Your task to perform on an android device: View the shopping cart on bestbuy. Add usb-a to the cart on bestbuy Image 0: 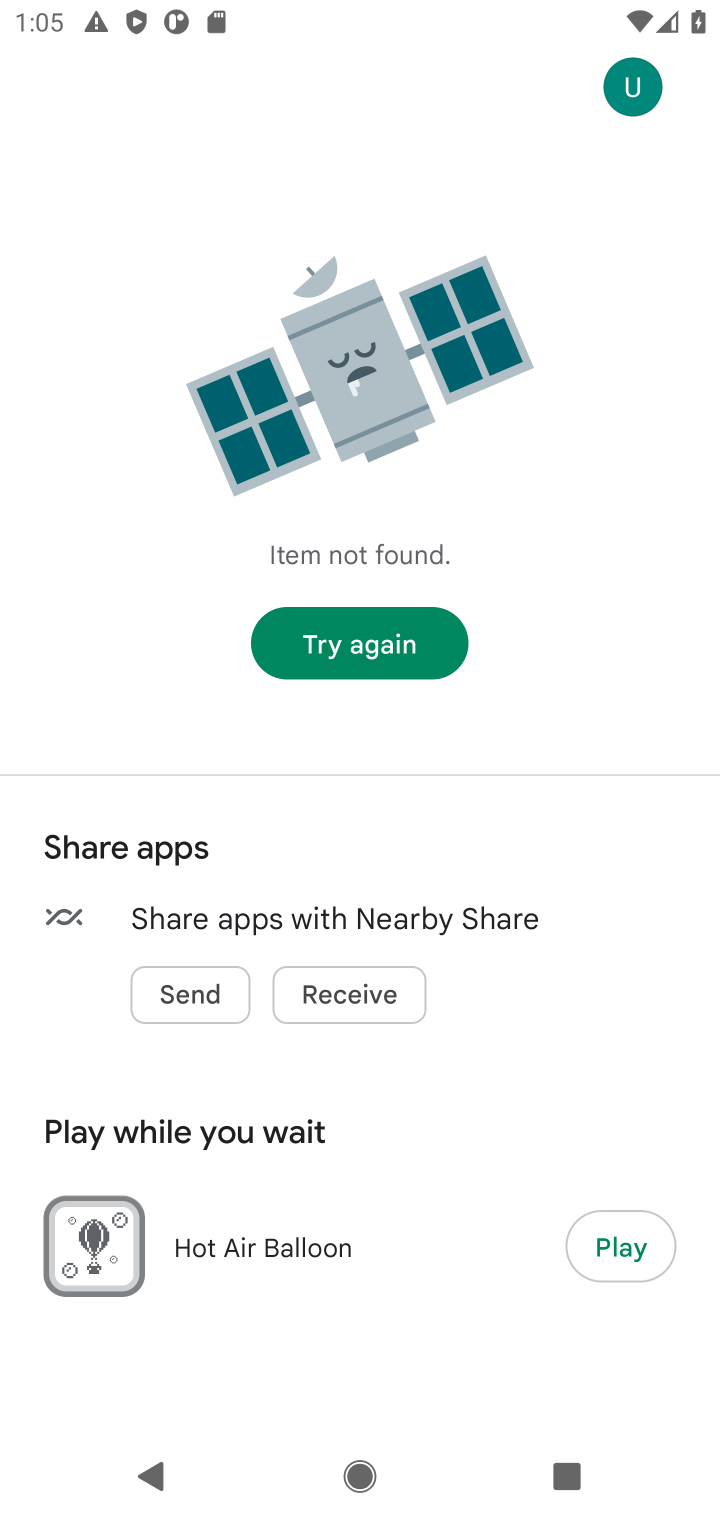
Step 0: press home button
Your task to perform on an android device: View the shopping cart on bestbuy. Add usb-a to the cart on bestbuy Image 1: 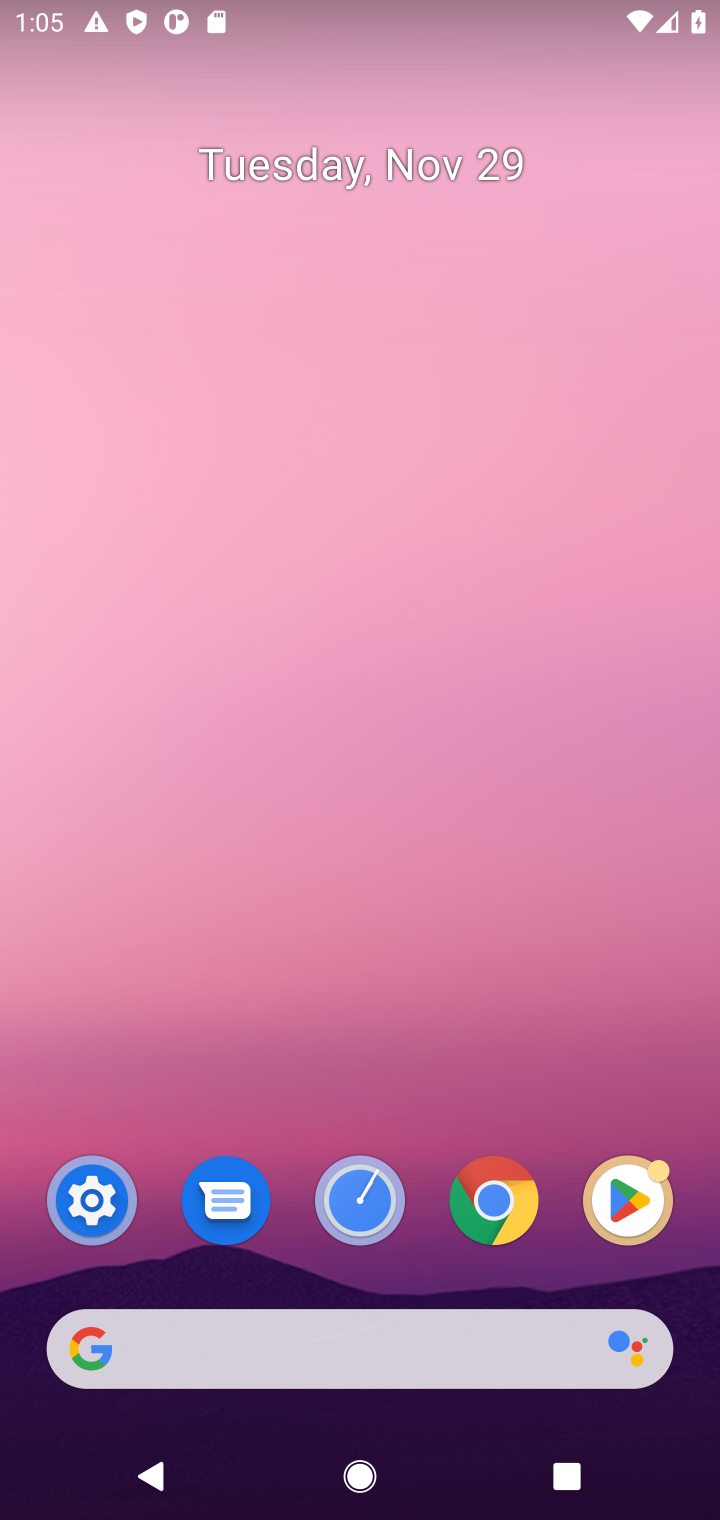
Step 1: click (291, 1367)
Your task to perform on an android device: View the shopping cart on bestbuy. Add usb-a to the cart on bestbuy Image 2: 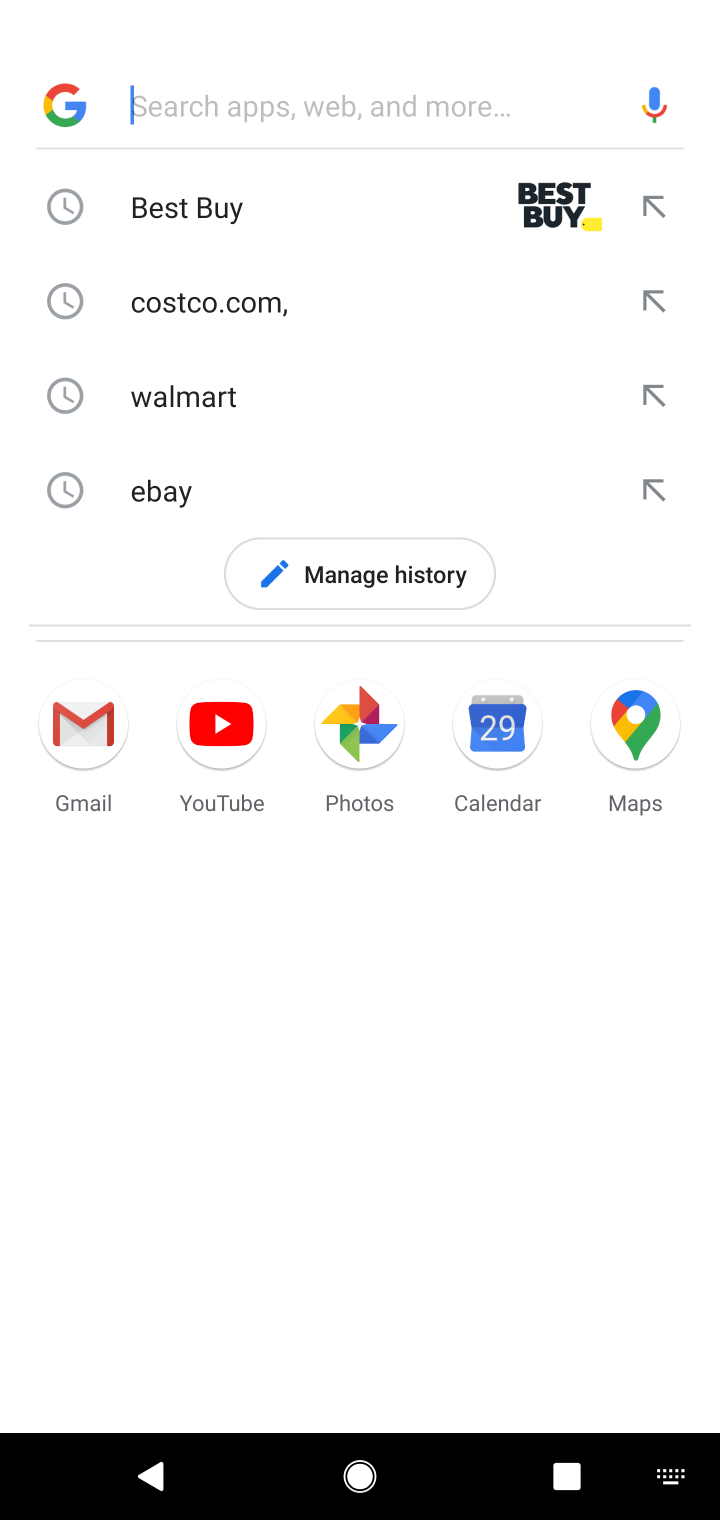
Step 2: type "bestbuy.com"
Your task to perform on an android device: View the shopping cart on bestbuy. Add usb-a to the cart on bestbuy Image 3: 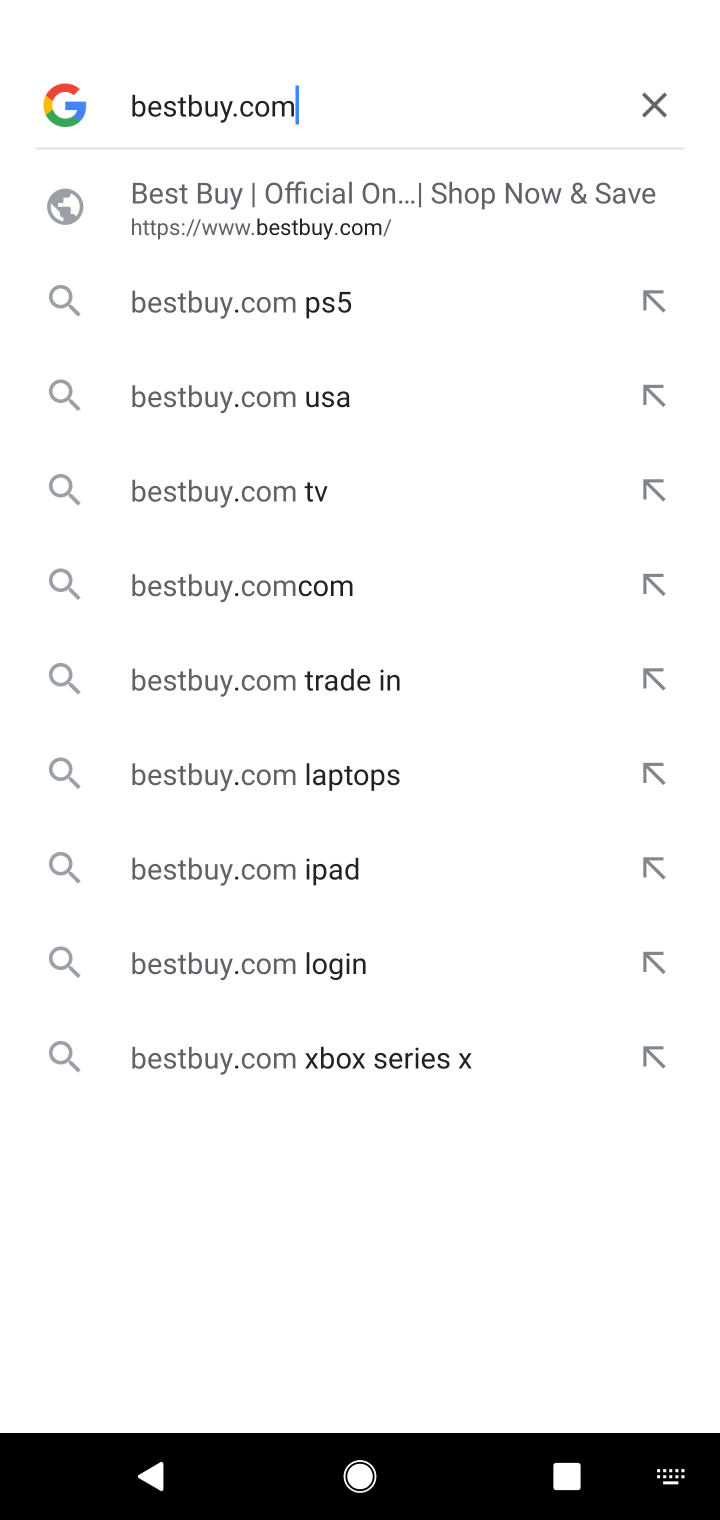
Step 3: click (345, 218)
Your task to perform on an android device: View the shopping cart on bestbuy. Add usb-a to the cart on bestbuy Image 4: 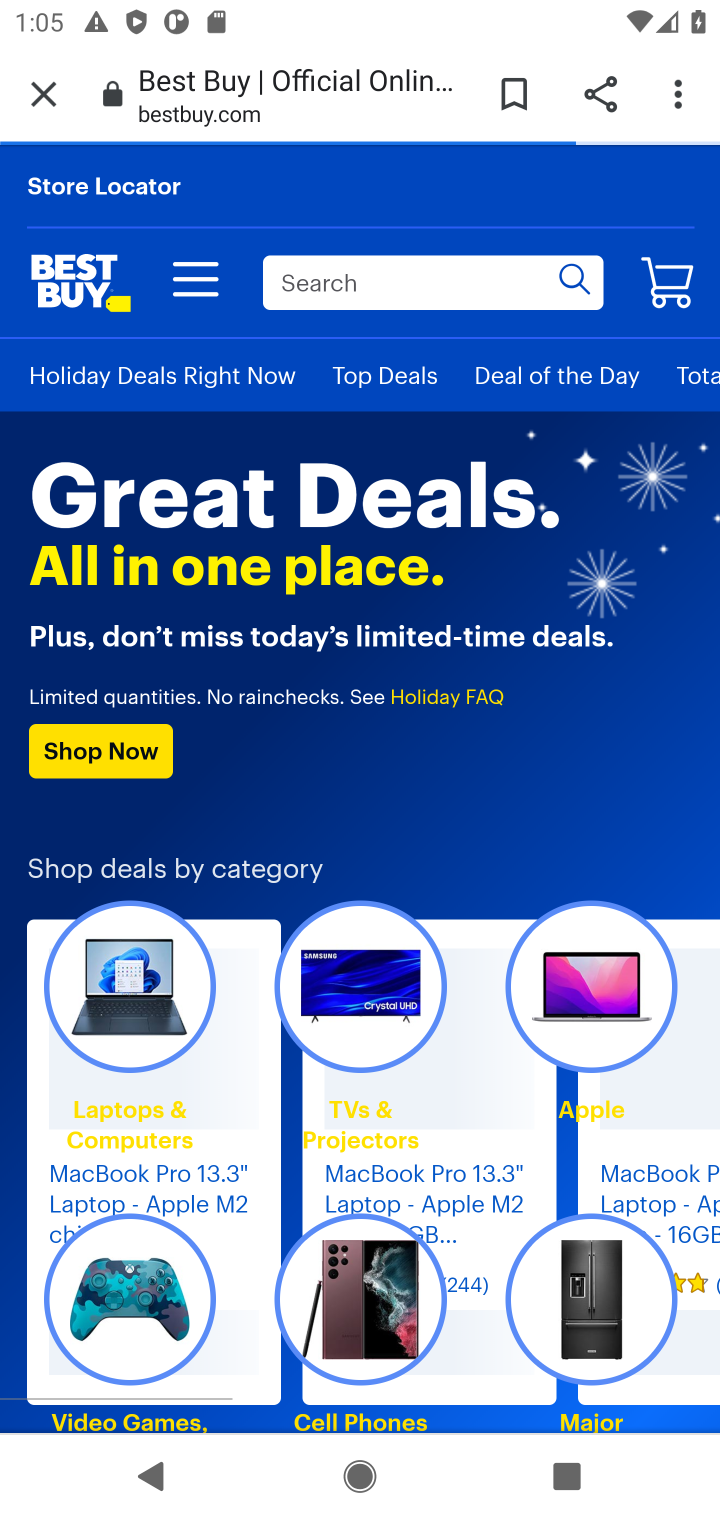
Step 4: click (420, 301)
Your task to perform on an android device: View the shopping cart on bestbuy. Add usb-a to the cart on bestbuy Image 5: 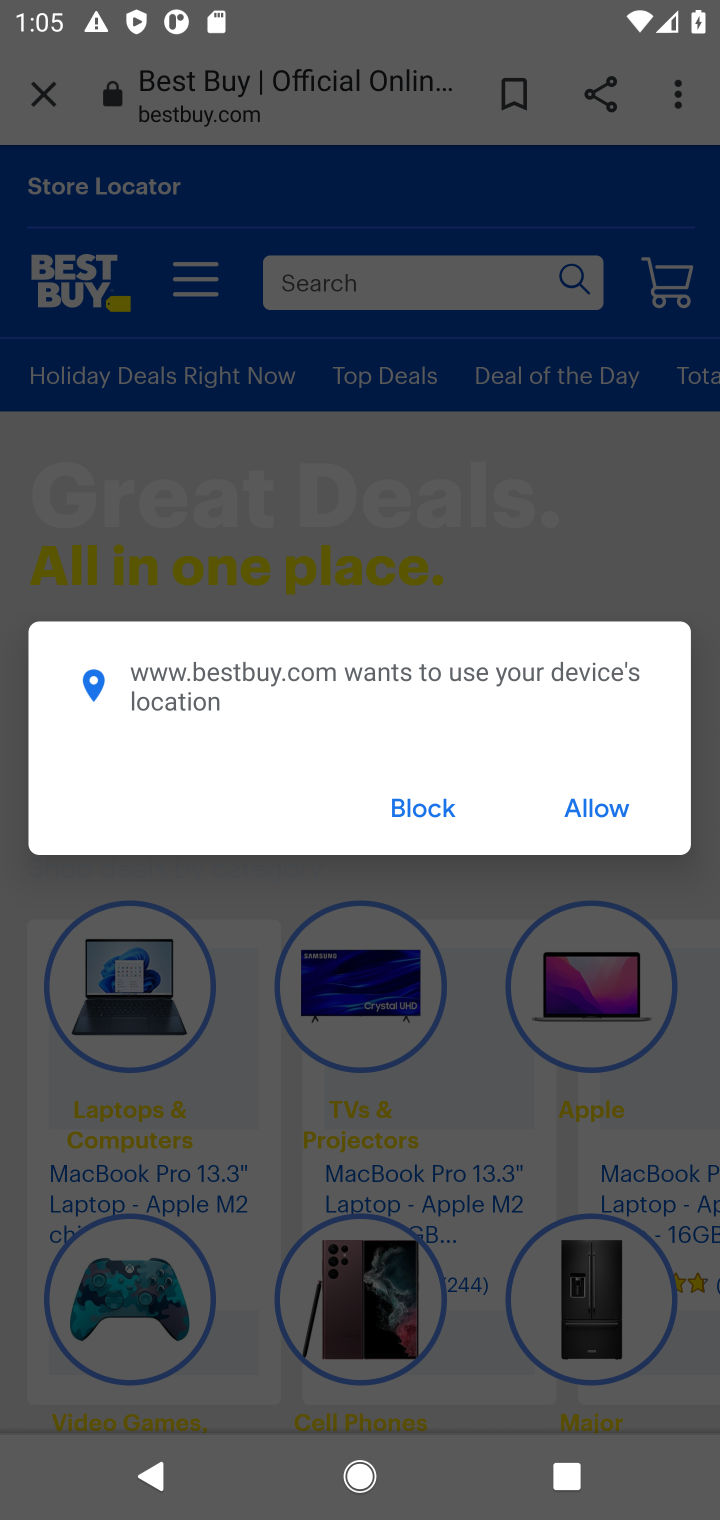
Step 5: type "usb-2 to"
Your task to perform on an android device: View the shopping cart on bestbuy. Add usb-a to the cart on bestbuy Image 6: 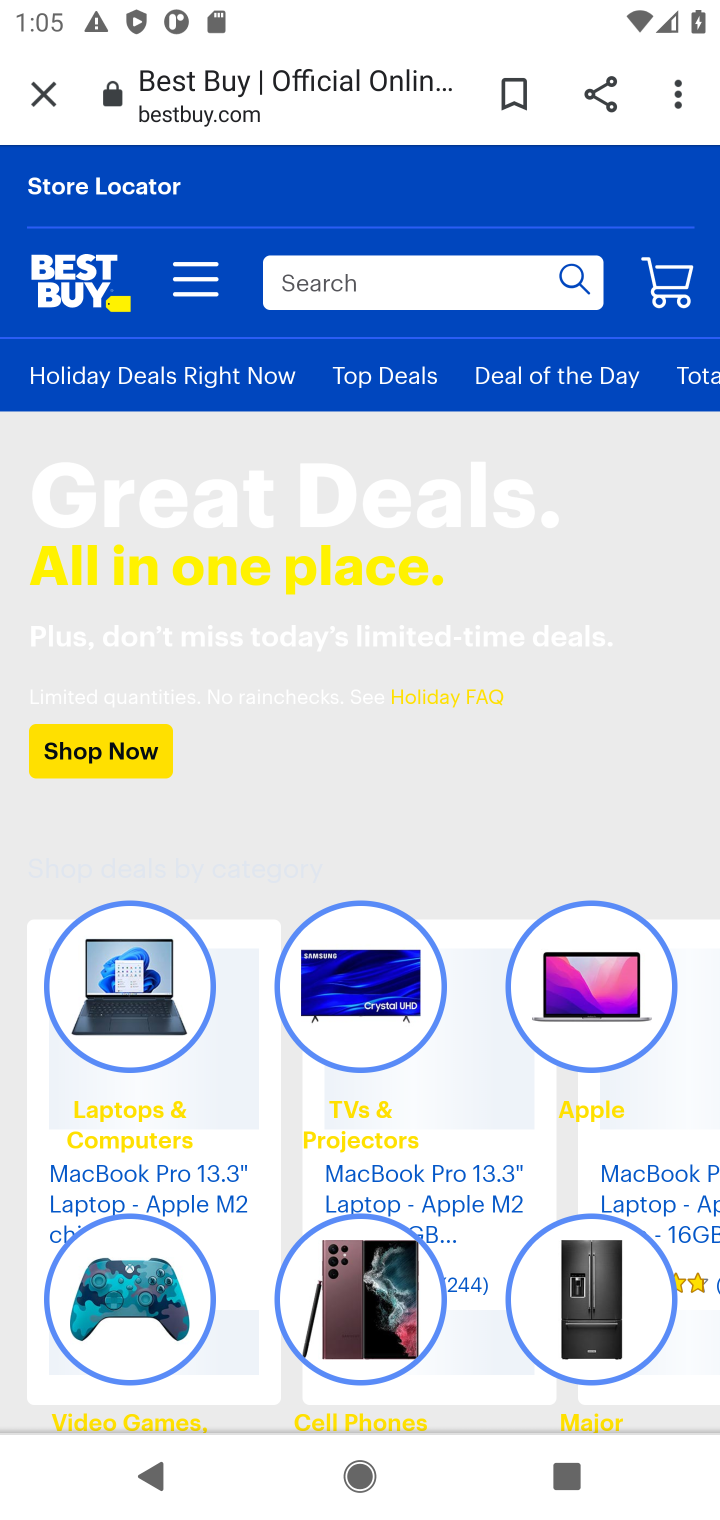
Step 6: click (398, 791)
Your task to perform on an android device: View the shopping cart on bestbuy. Add usb-a to the cart on bestbuy Image 7: 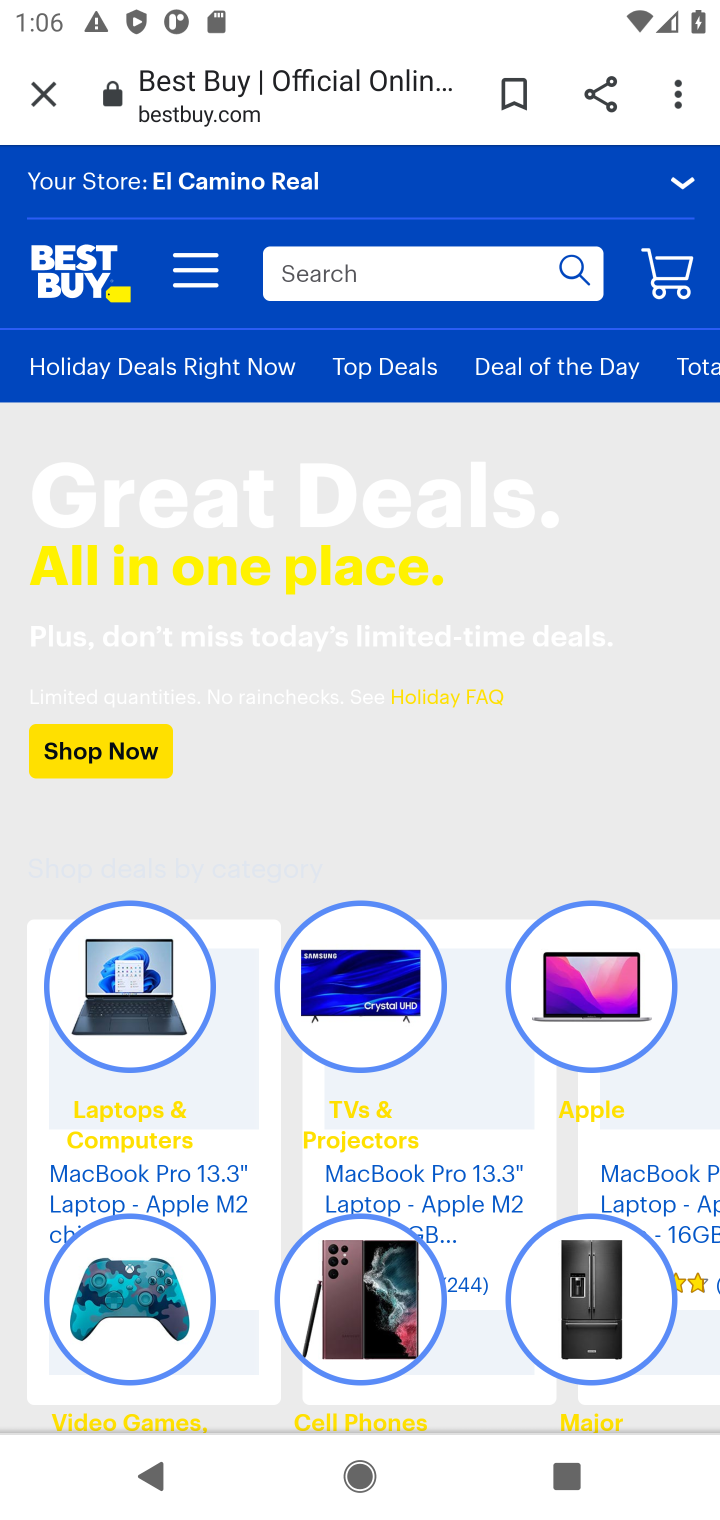
Step 7: click (375, 277)
Your task to perform on an android device: View the shopping cart on bestbuy. Add usb-a to the cart on bestbuy Image 8: 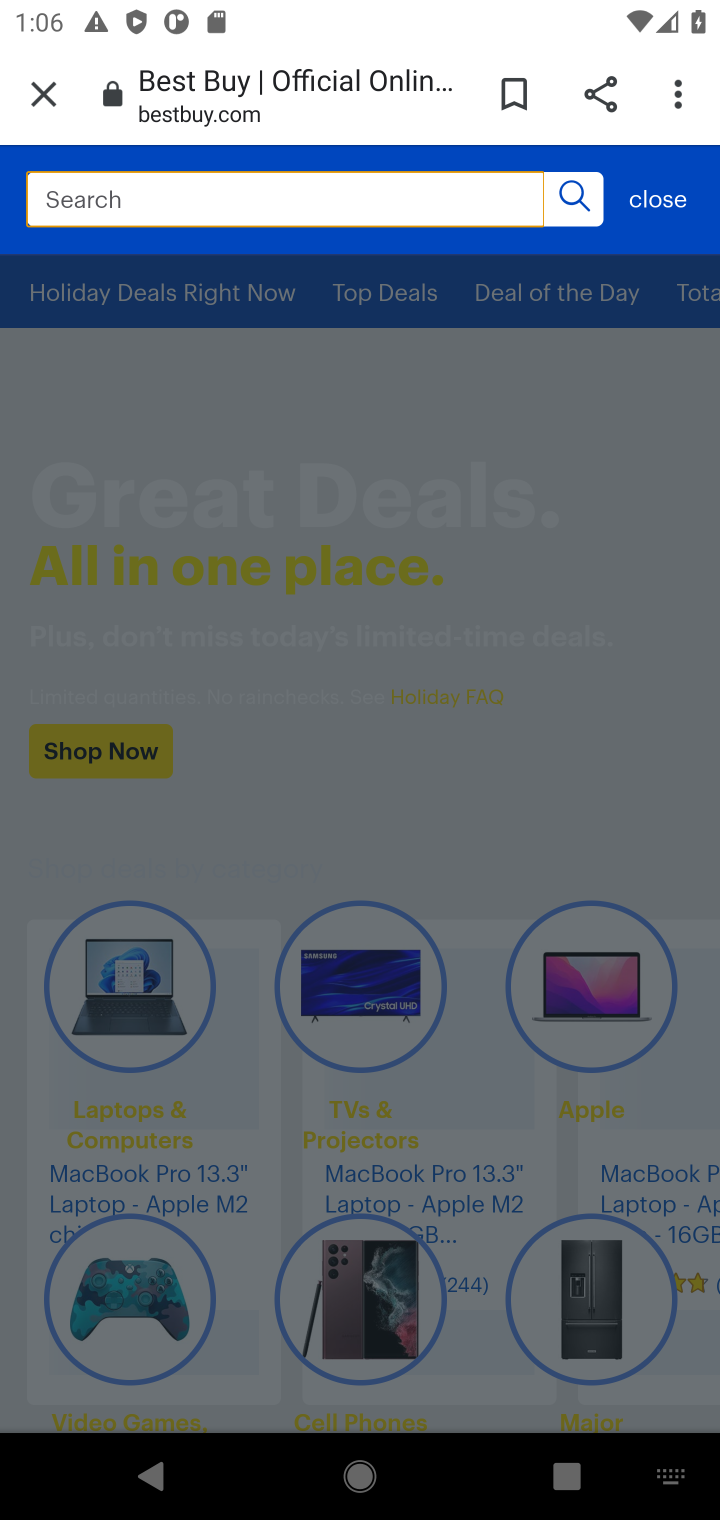
Step 8: press home button
Your task to perform on an android device: View the shopping cart on bestbuy. Add usb-a to the cart on bestbuy Image 9: 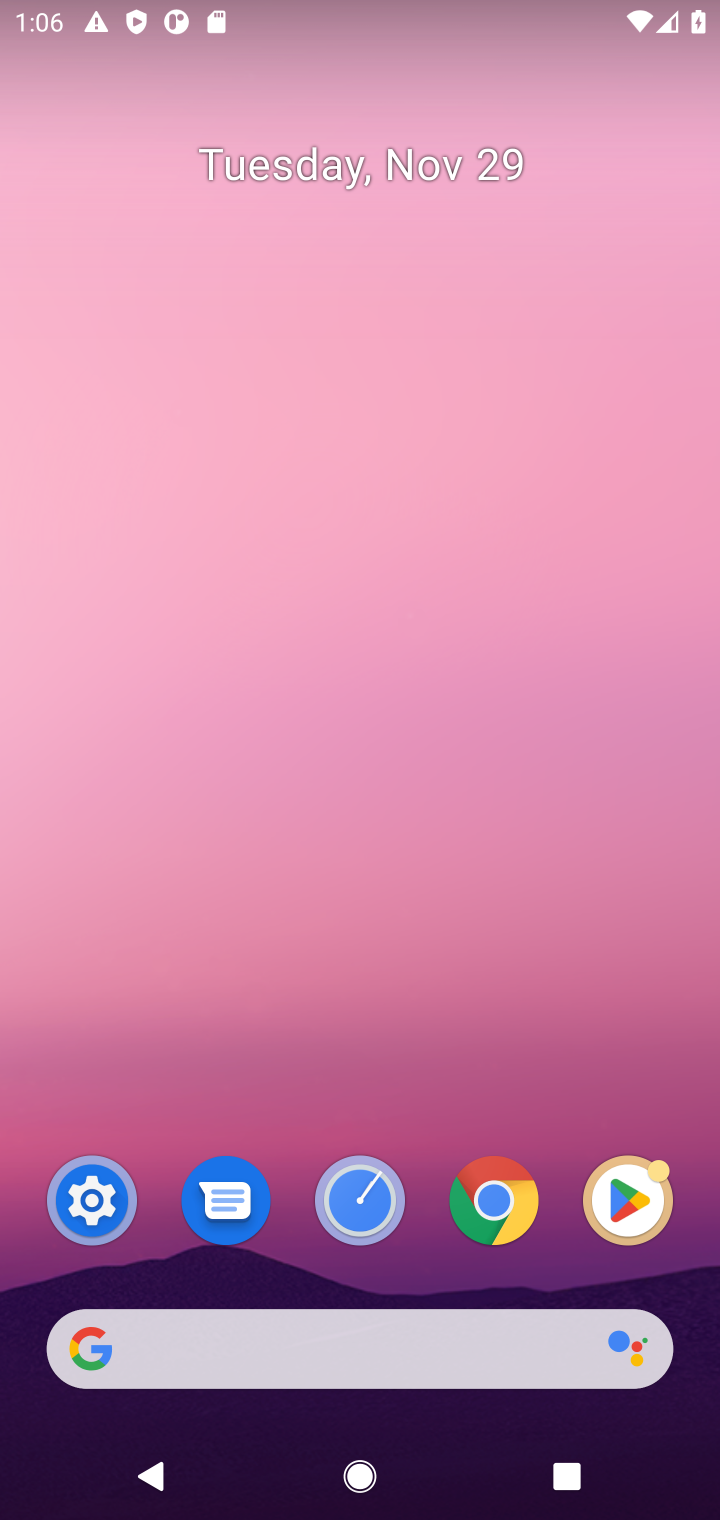
Step 9: click (412, 1328)
Your task to perform on an android device: View the shopping cart on bestbuy. Add usb-a to the cart on bestbuy Image 10: 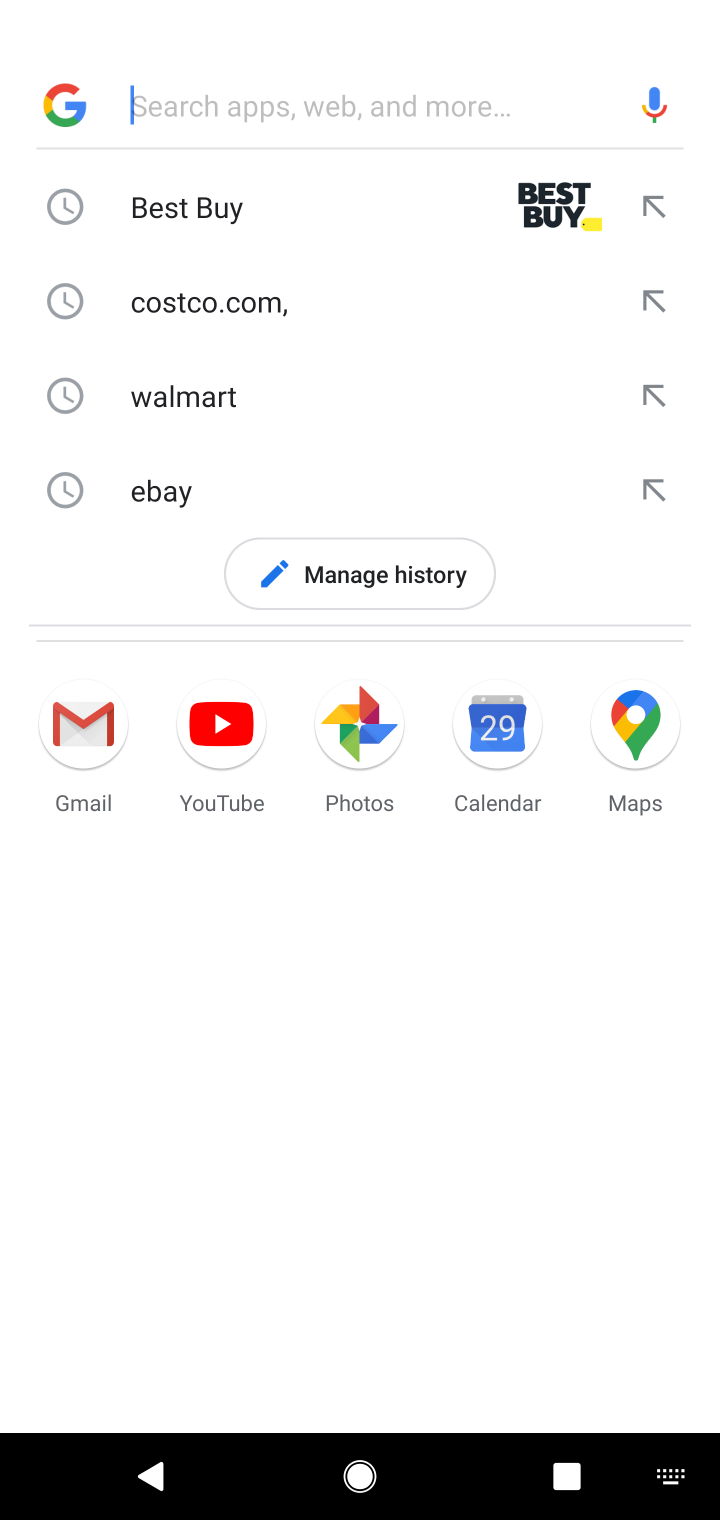
Step 10: click (162, 209)
Your task to perform on an android device: View the shopping cart on bestbuy. Add usb-a to the cart on bestbuy Image 11: 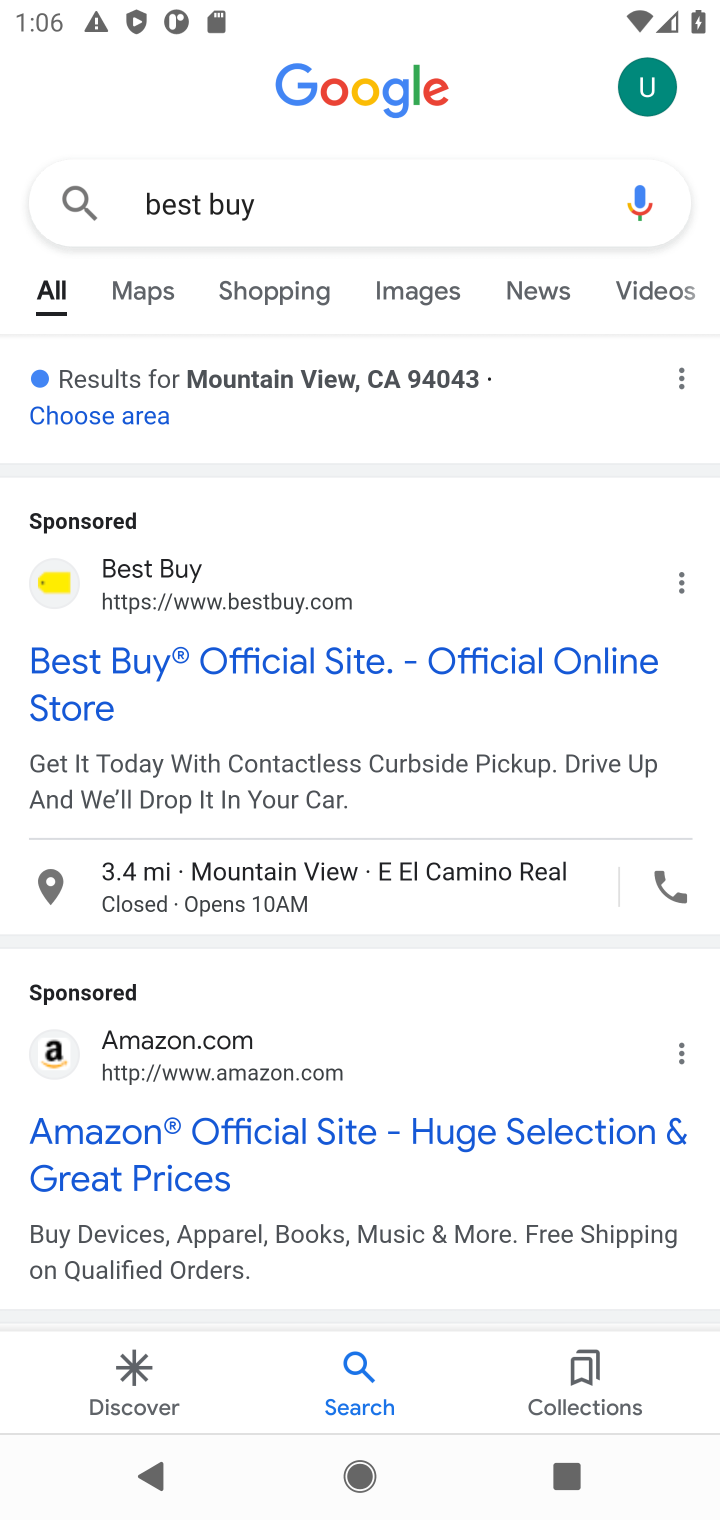
Step 11: click (248, 651)
Your task to perform on an android device: View the shopping cart on bestbuy. Add usb-a to the cart on bestbuy Image 12: 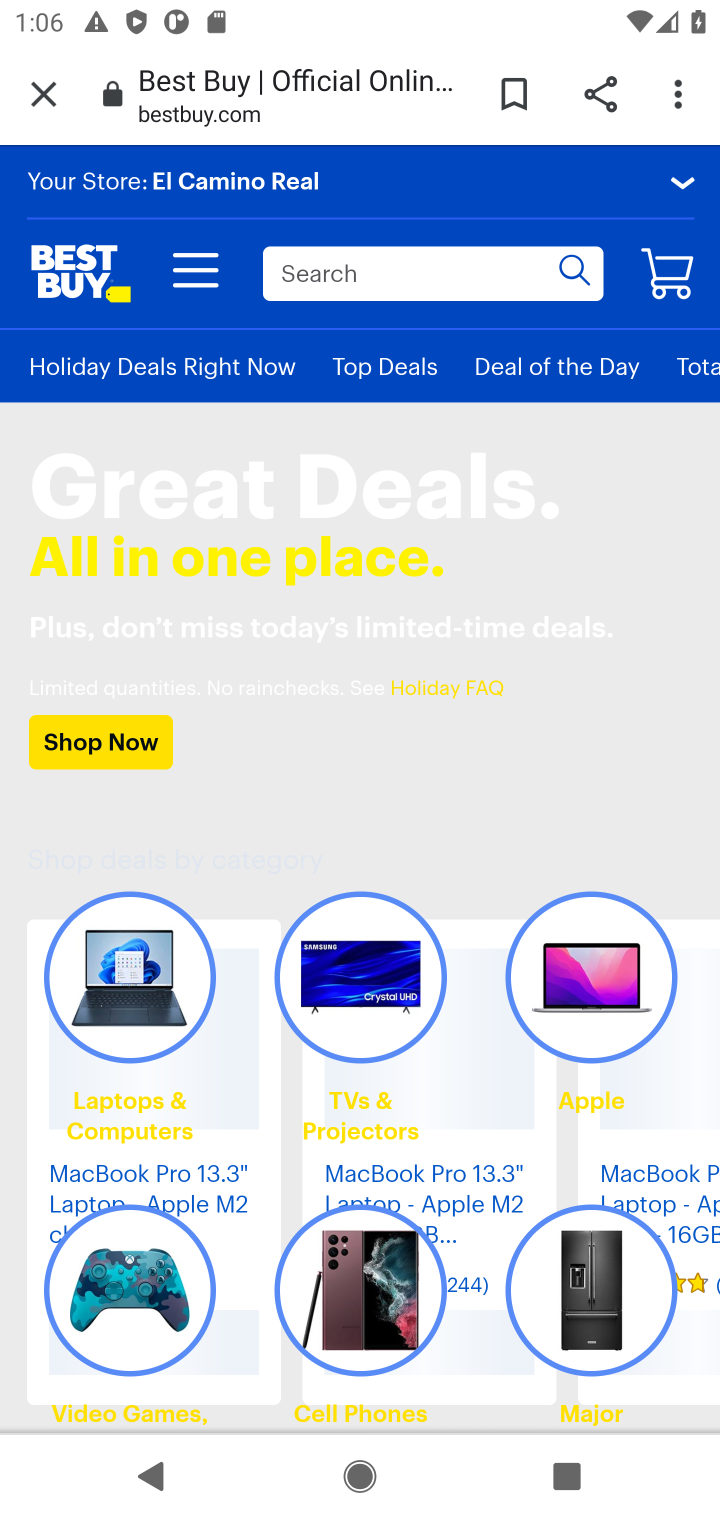
Step 12: task complete